Your task to perform on an android device: Show me the alarms in the clock app Image 0: 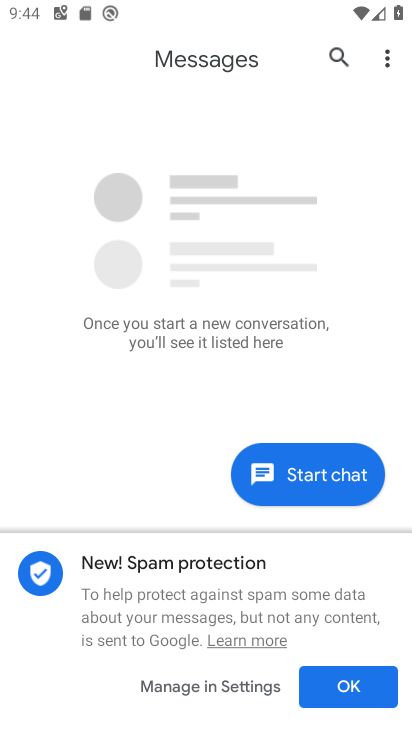
Step 0: press home button
Your task to perform on an android device: Show me the alarms in the clock app Image 1: 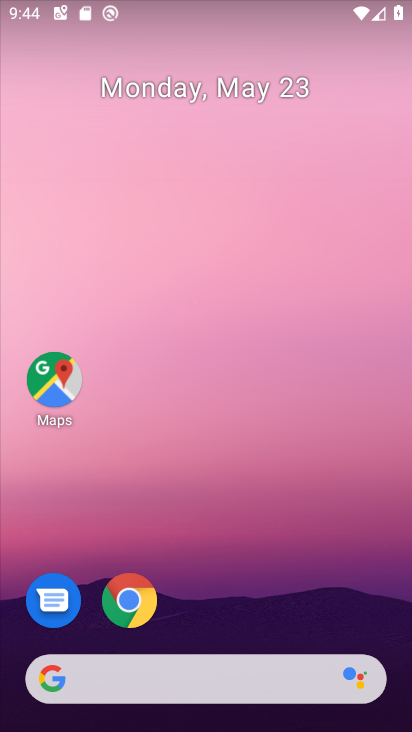
Step 1: drag from (178, 721) to (180, 144)
Your task to perform on an android device: Show me the alarms in the clock app Image 2: 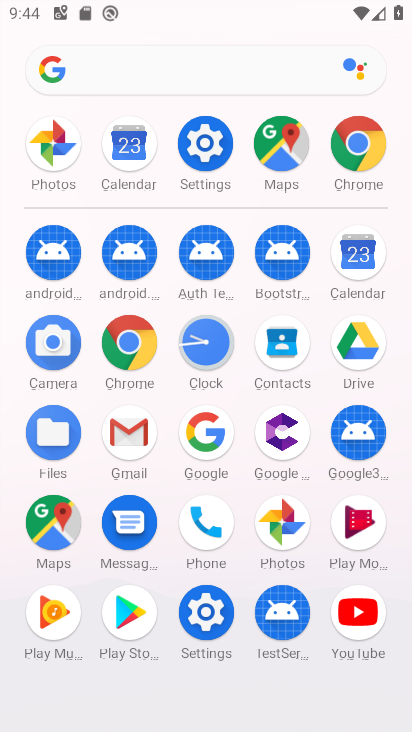
Step 2: click (204, 338)
Your task to perform on an android device: Show me the alarms in the clock app Image 3: 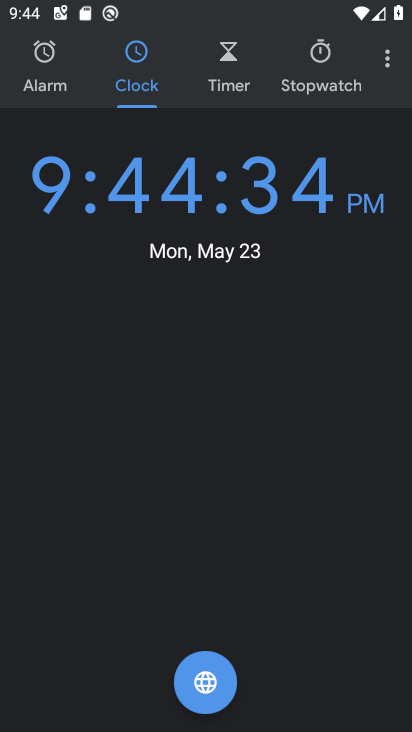
Step 3: click (46, 59)
Your task to perform on an android device: Show me the alarms in the clock app Image 4: 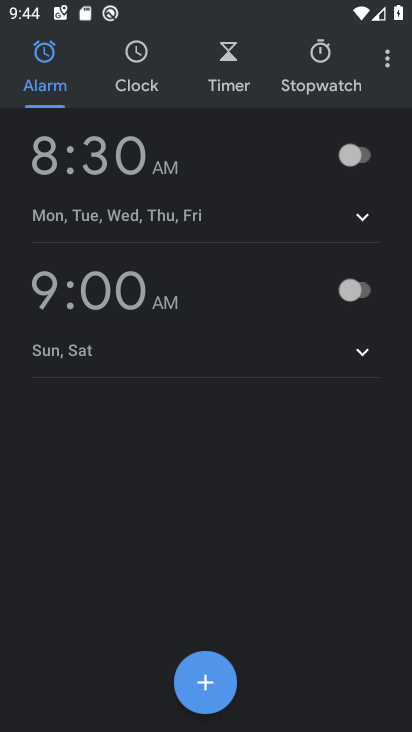
Step 4: task complete